Your task to perform on an android device: star an email in the gmail app Image 0: 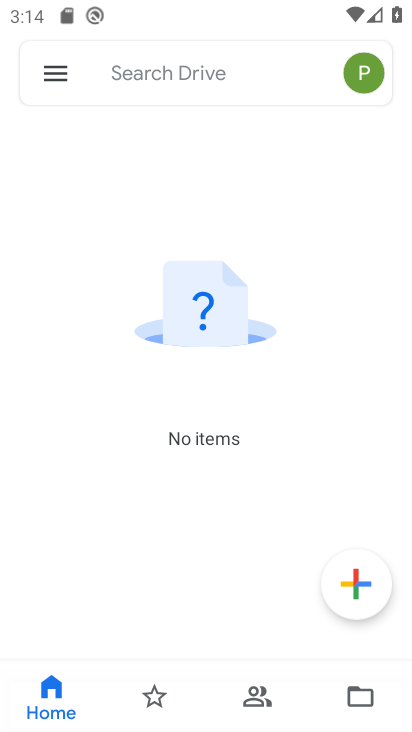
Step 0: press home button
Your task to perform on an android device: star an email in the gmail app Image 1: 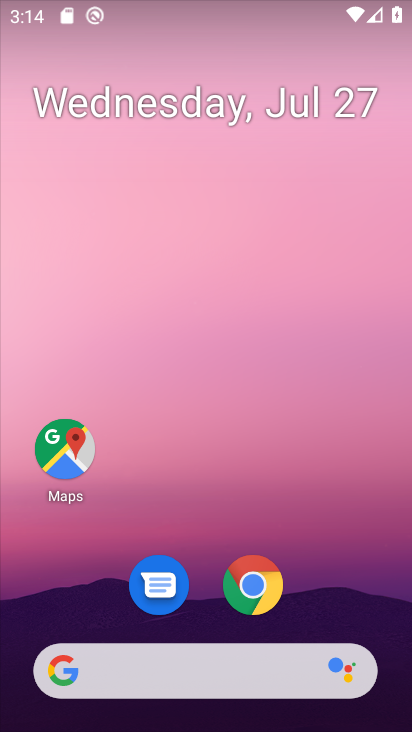
Step 1: drag from (302, 589) to (274, 54)
Your task to perform on an android device: star an email in the gmail app Image 2: 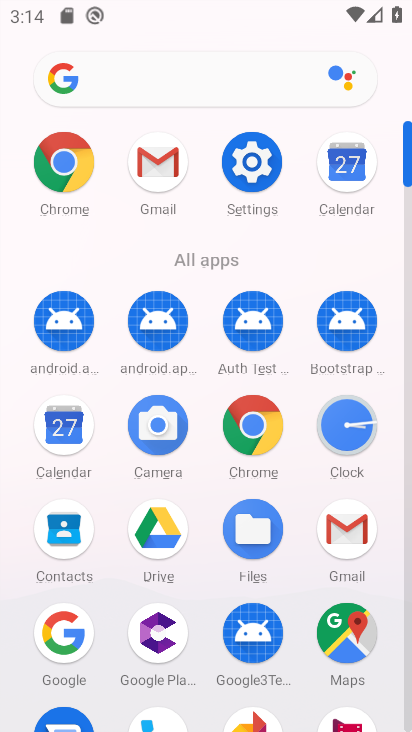
Step 2: click (163, 166)
Your task to perform on an android device: star an email in the gmail app Image 3: 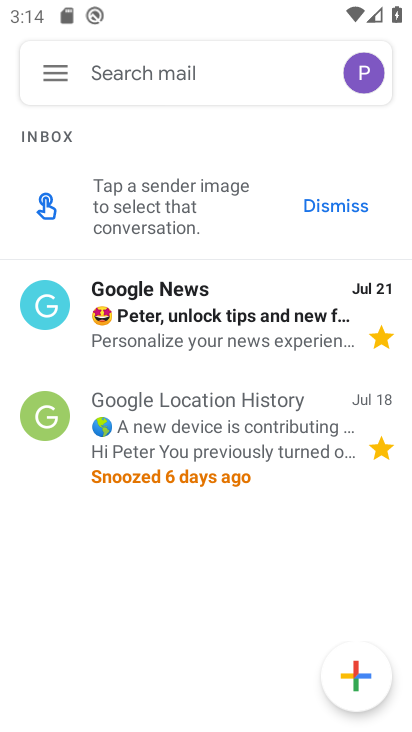
Step 3: click (55, 68)
Your task to perform on an android device: star an email in the gmail app Image 4: 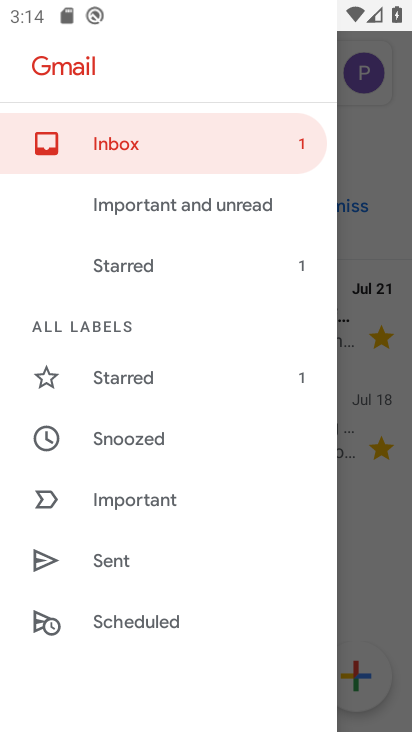
Step 4: drag from (191, 560) to (189, 104)
Your task to perform on an android device: star an email in the gmail app Image 5: 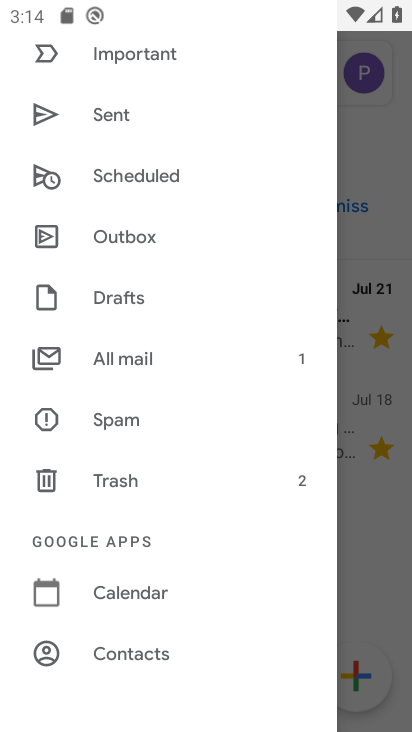
Step 5: click (149, 352)
Your task to perform on an android device: star an email in the gmail app Image 6: 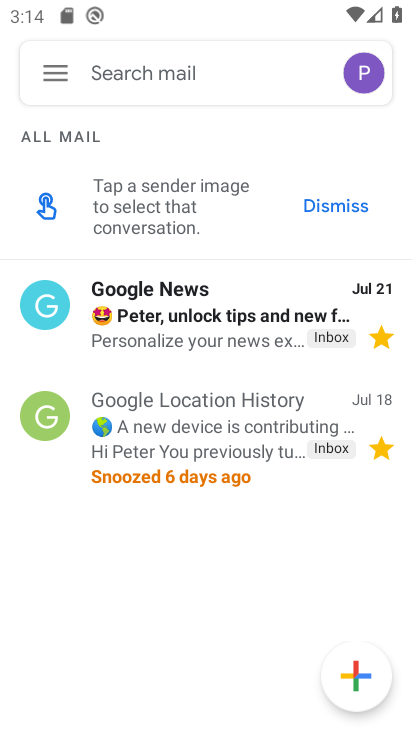
Step 6: task complete